Your task to perform on an android device: Search for Mexican restaurants on Maps Image 0: 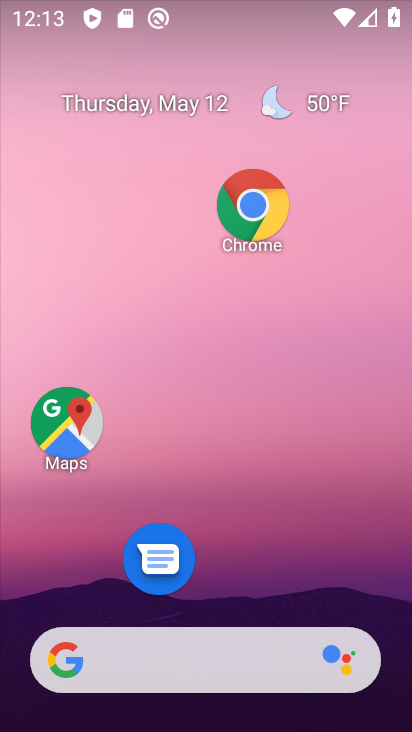
Step 0: click (73, 431)
Your task to perform on an android device: Search for Mexican restaurants on Maps Image 1: 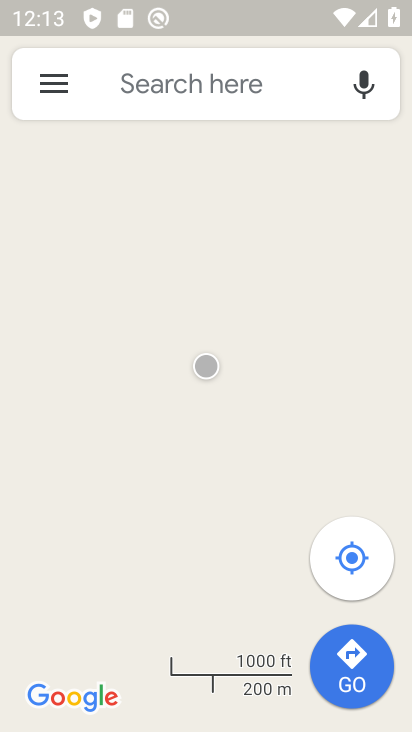
Step 1: click (162, 84)
Your task to perform on an android device: Search for Mexican restaurants on Maps Image 2: 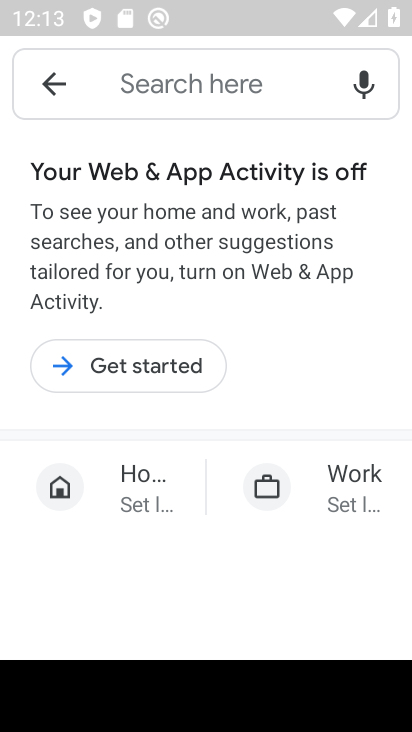
Step 2: click (162, 84)
Your task to perform on an android device: Search for Mexican restaurants on Maps Image 3: 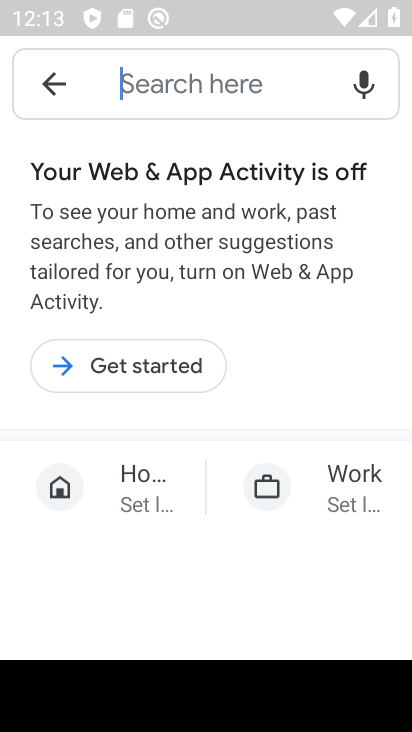
Step 3: click (52, 95)
Your task to perform on an android device: Search for Mexican restaurants on Maps Image 4: 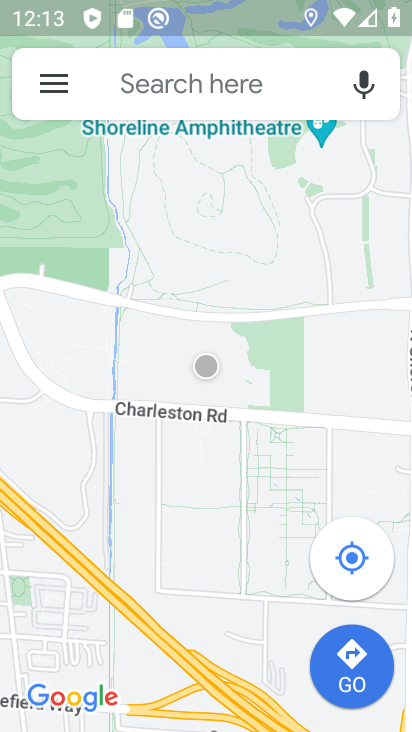
Step 4: click (168, 93)
Your task to perform on an android device: Search for Mexican restaurants on Maps Image 5: 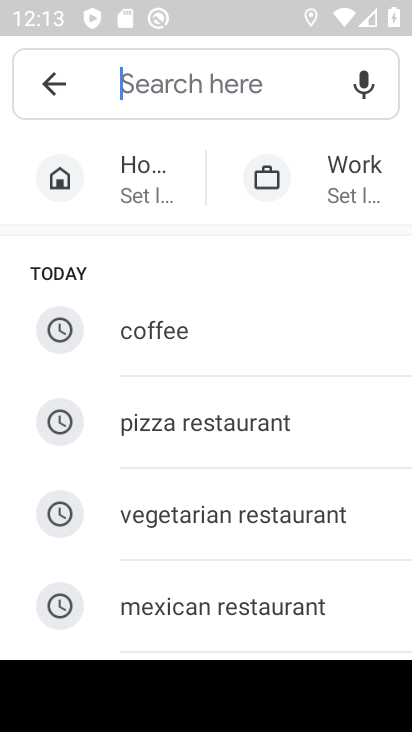
Step 5: click (238, 618)
Your task to perform on an android device: Search for Mexican restaurants on Maps Image 6: 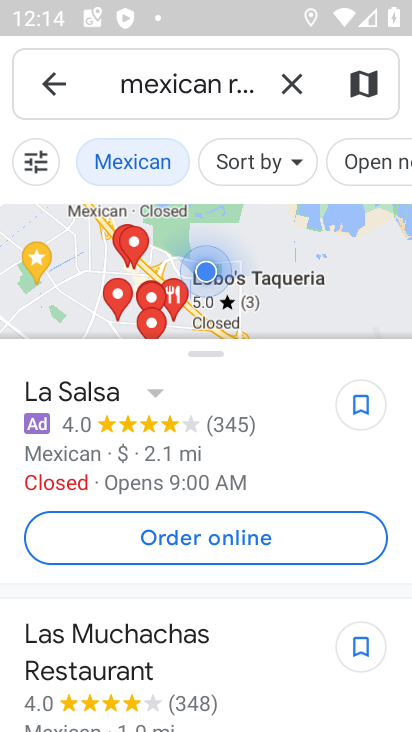
Step 6: task complete